Your task to perform on an android device: turn on wifi Image 0: 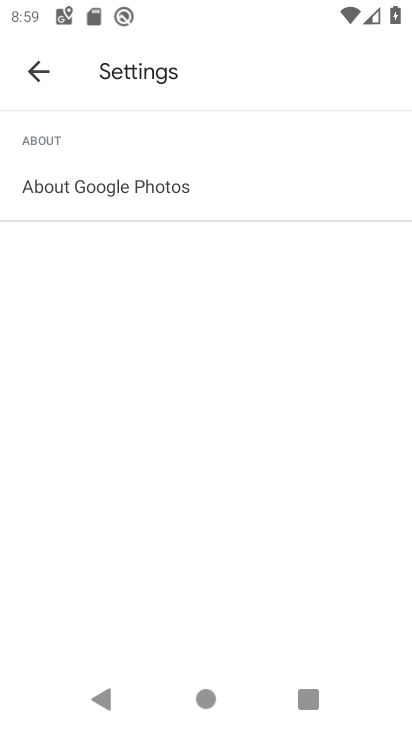
Step 0: click (32, 65)
Your task to perform on an android device: turn on wifi Image 1: 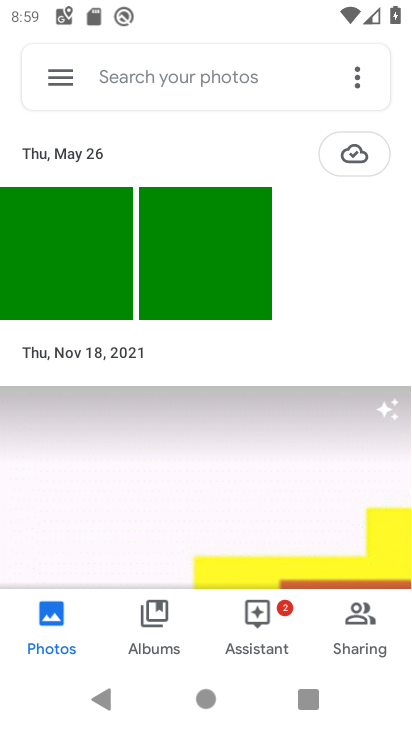
Step 1: press back button
Your task to perform on an android device: turn on wifi Image 2: 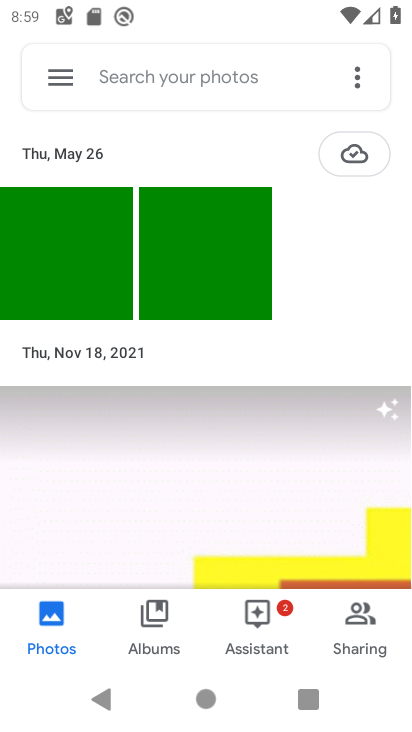
Step 2: press home button
Your task to perform on an android device: turn on wifi Image 3: 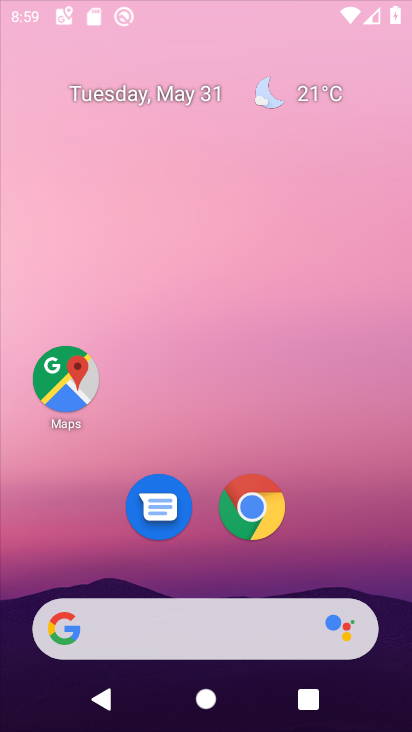
Step 3: press home button
Your task to perform on an android device: turn on wifi Image 4: 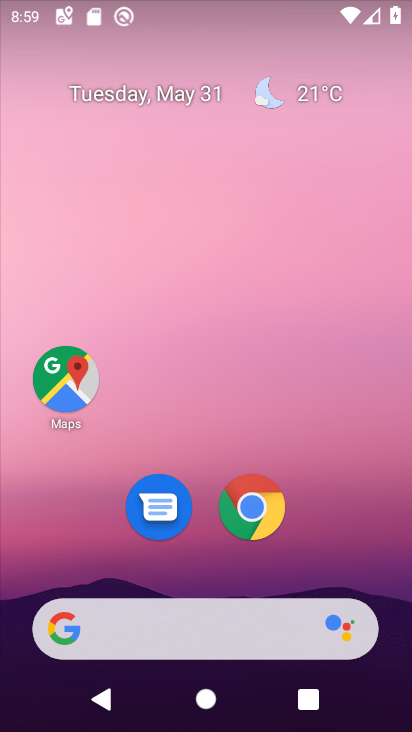
Step 4: press home button
Your task to perform on an android device: turn on wifi Image 5: 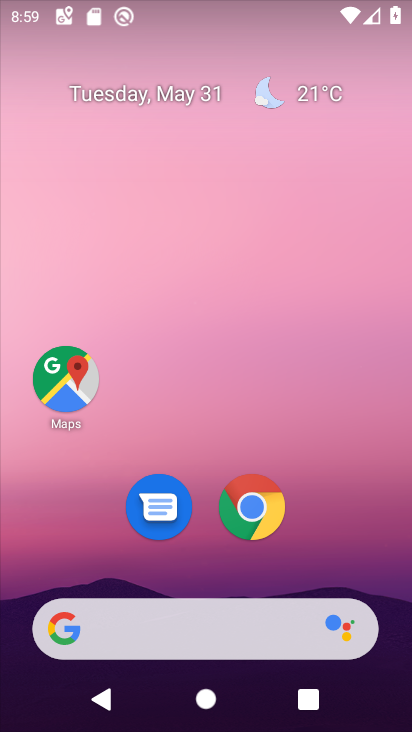
Step 5: press home button
Your task to perform on an android device: turn on wifi Image 6: 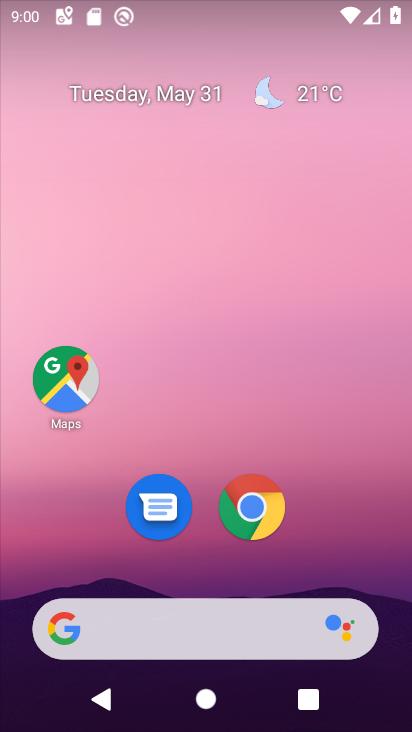
Step 6: click (158, 128)
Your task to perform on an android device: turn on wifi Image 7: 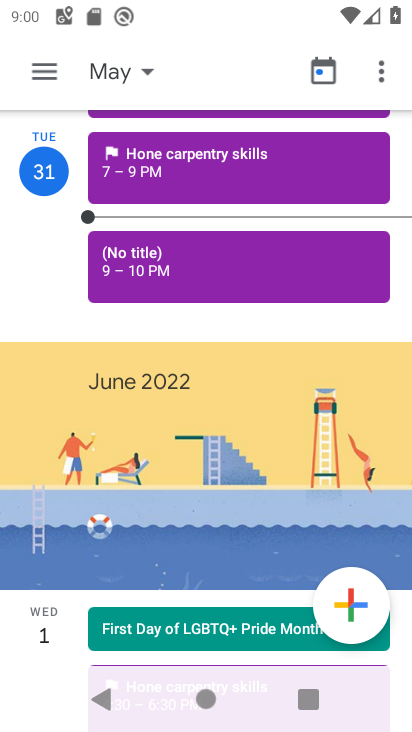
Step 7: drag from (253, 591) to (271, 47)
Your task to perform on an android device: turn on wifi Image 8: 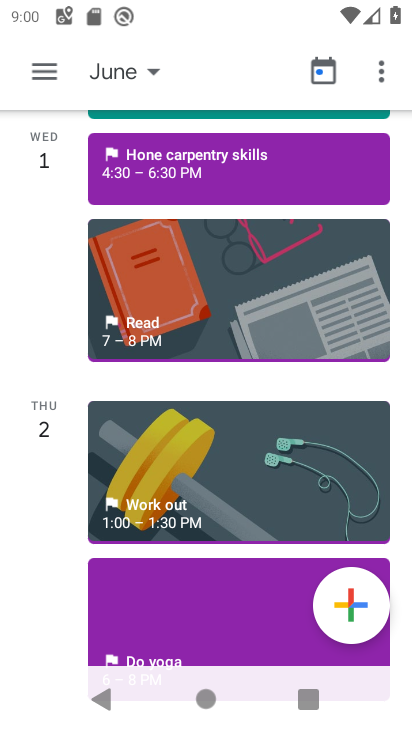
Step 8: drag from (311, 628) to (252, 56)
Your task to perform on an android device: turn on wifi Image 9: 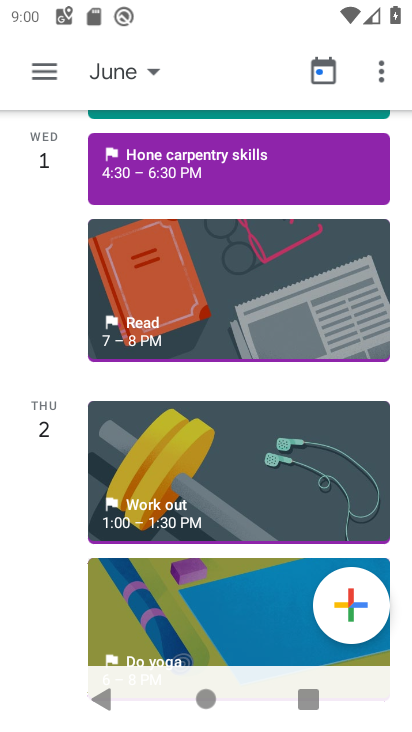
Step 9: drag from (270, 689) to (208, 61)
Your task to perform on an android device: turn on wifi Image 10: 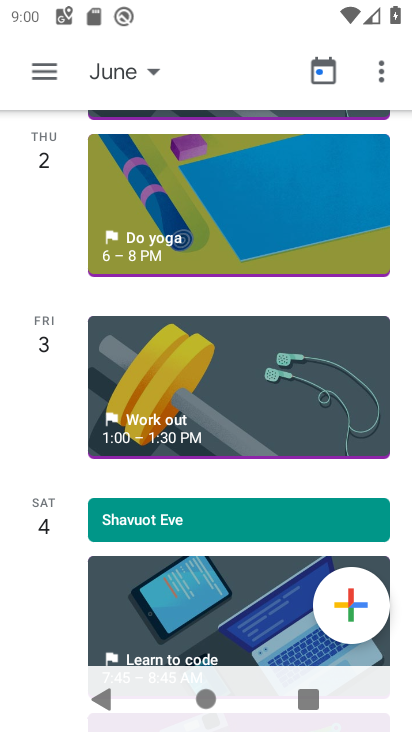
Step 10: click (243, 5)
Your task to perform on an android device: turn on wifi Image 11: 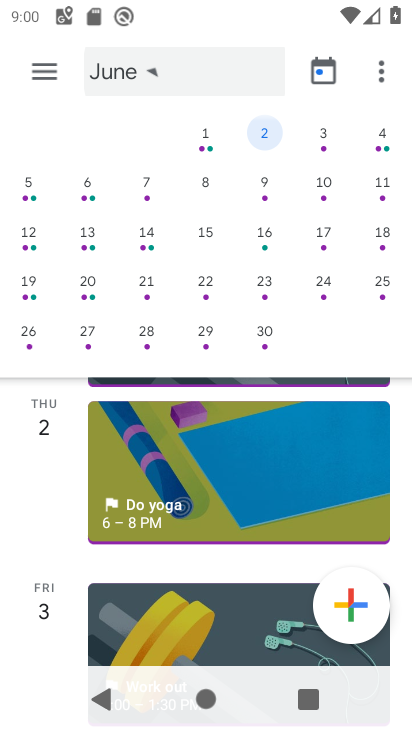
Step 11: press back button
Your task to perform on an android device: turn on wifi Image 12: 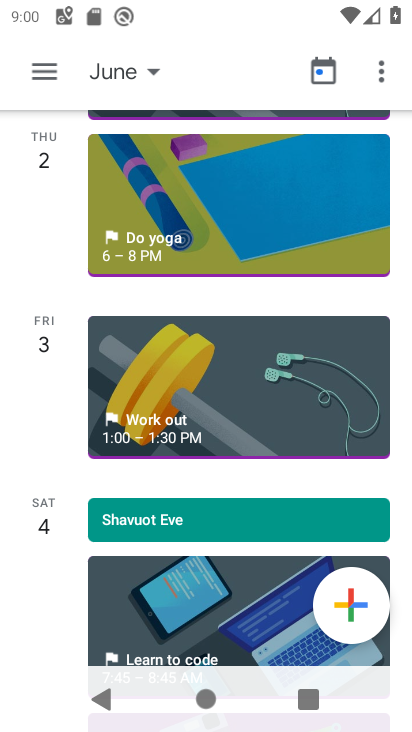
Step 12: press home button
Your task to perform on an android device: turn on wifi Image 13: 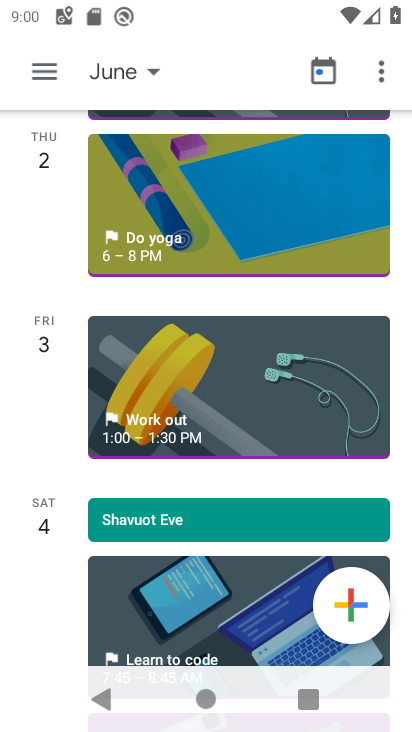
Step 13: press home button
Your task to perform on an android device: turn on wifi Image 14: 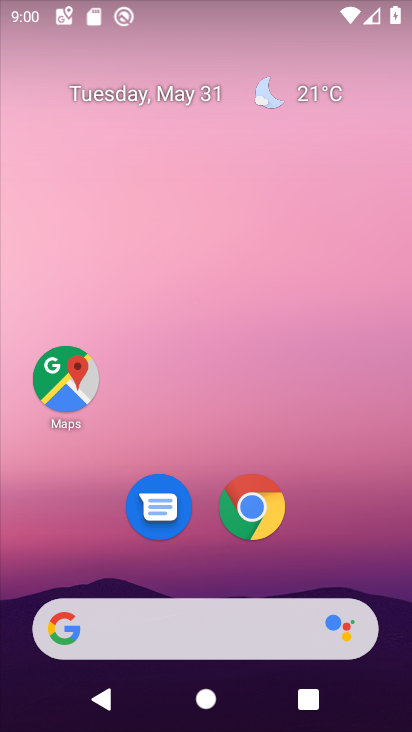
Step 14: drag from (247, 705) to (101, 44)
Your task to perform on an android device: turn on wifi Image 15: 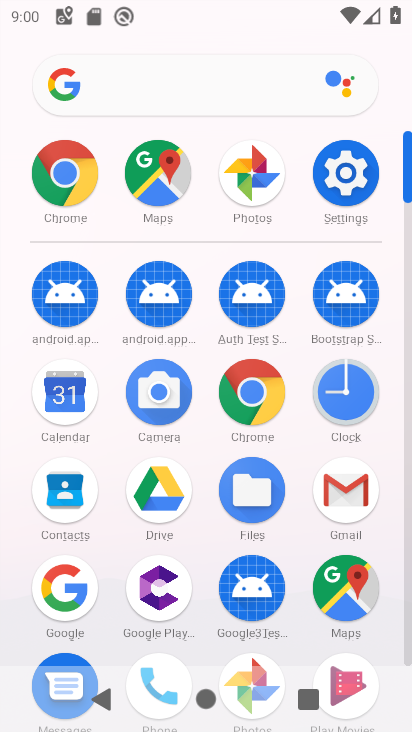
Step 15: click (351, 177)
Your task to perform on an android device: turn on wifi Image 16: 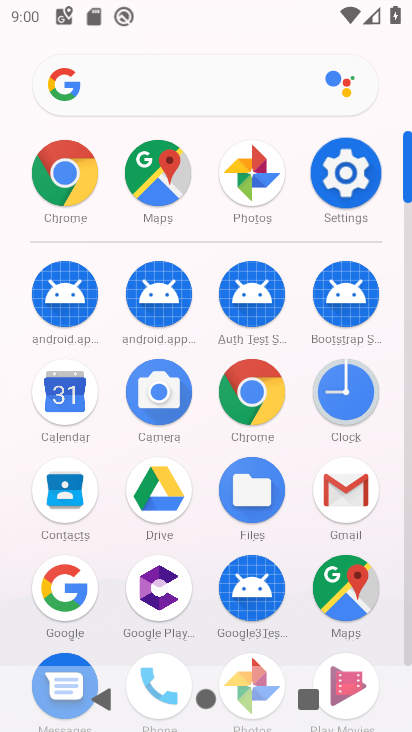
Step 16: click (349, 176)
Your task to perform on an android device: turn on wifi Image 17: 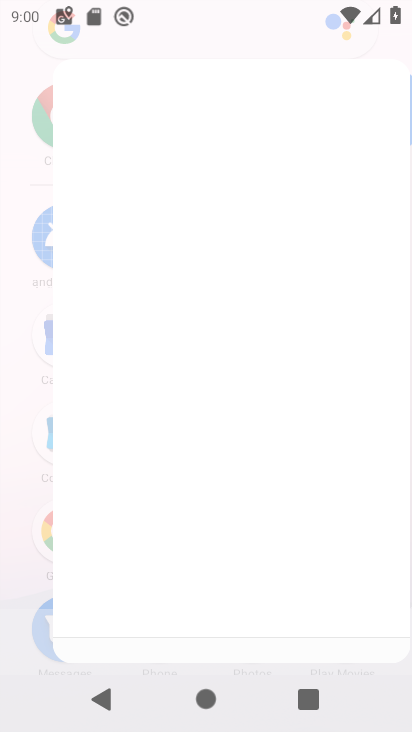
Step 17: click (350, 175)
Your task to perform on an android device: turn on wifi Image 18: 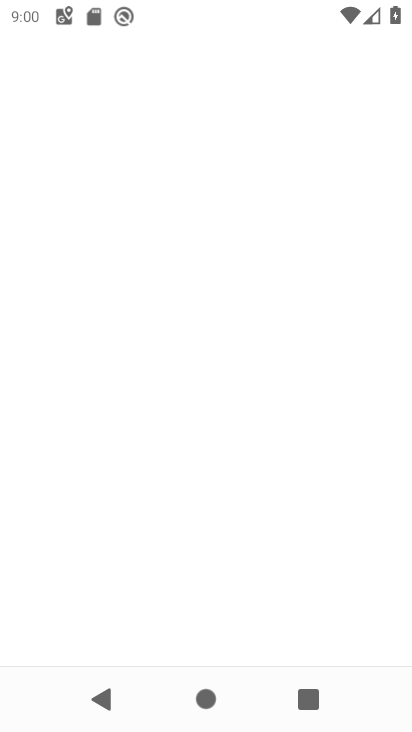
Step 18: click (348, 174)
Your task to perform on an android device: turn on wifi Image 19: 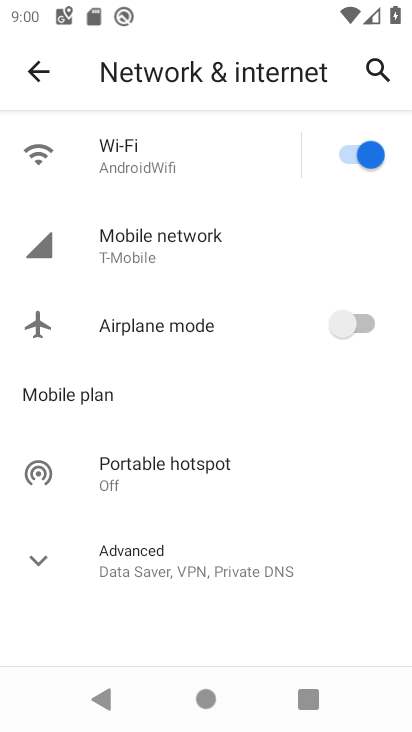
Step 19: task complete